Your task to perform on an android device: Open maps Image 0: 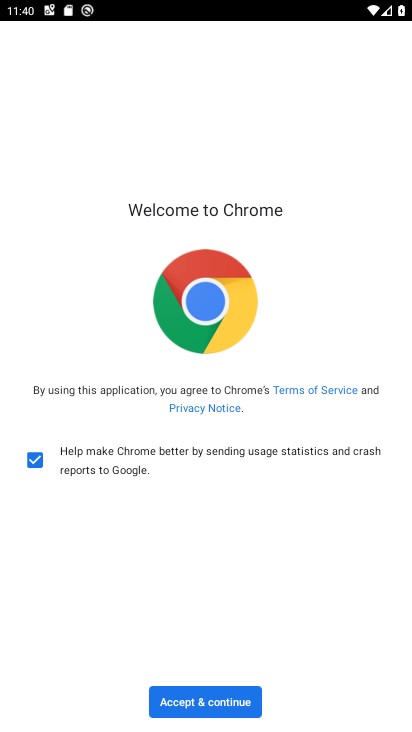
Step 0: press home button
Your task to perform on an android device: Open maps Image 1: 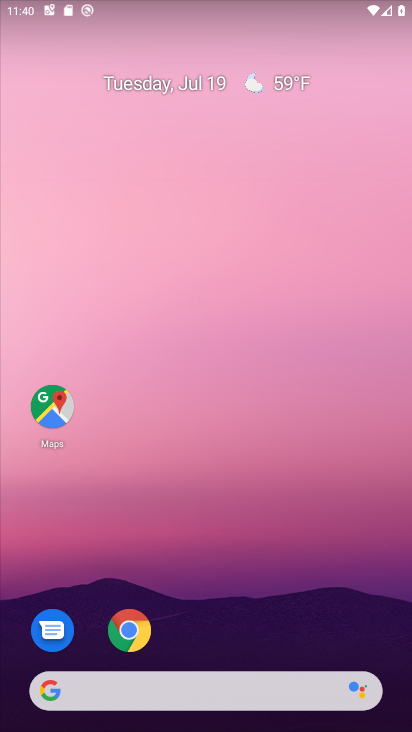
Step 1: click (52, 409)
Your task to perform on an android device: Open maps Image 2: 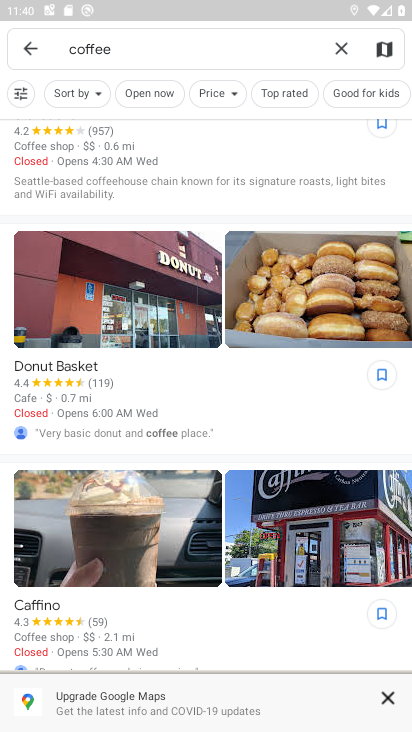
Step 2: click (339, 41)
Your task to perform on an android device: Open maps Image 3: 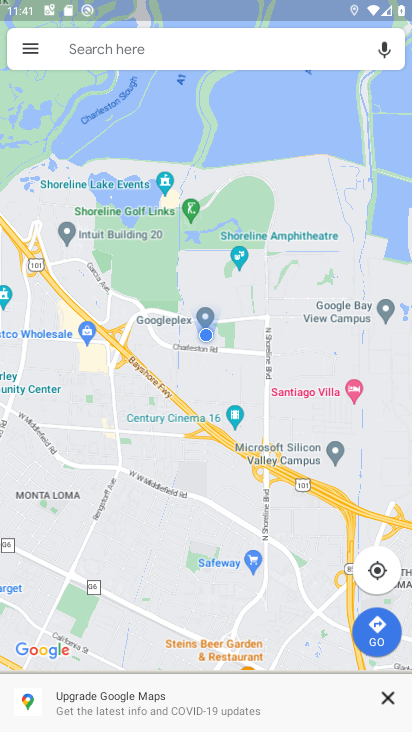
Step 3: task complete